Your task to perform on an android device: Show the shopping cart on target.com. Add razer thresher to the cart on target.com Image 0: 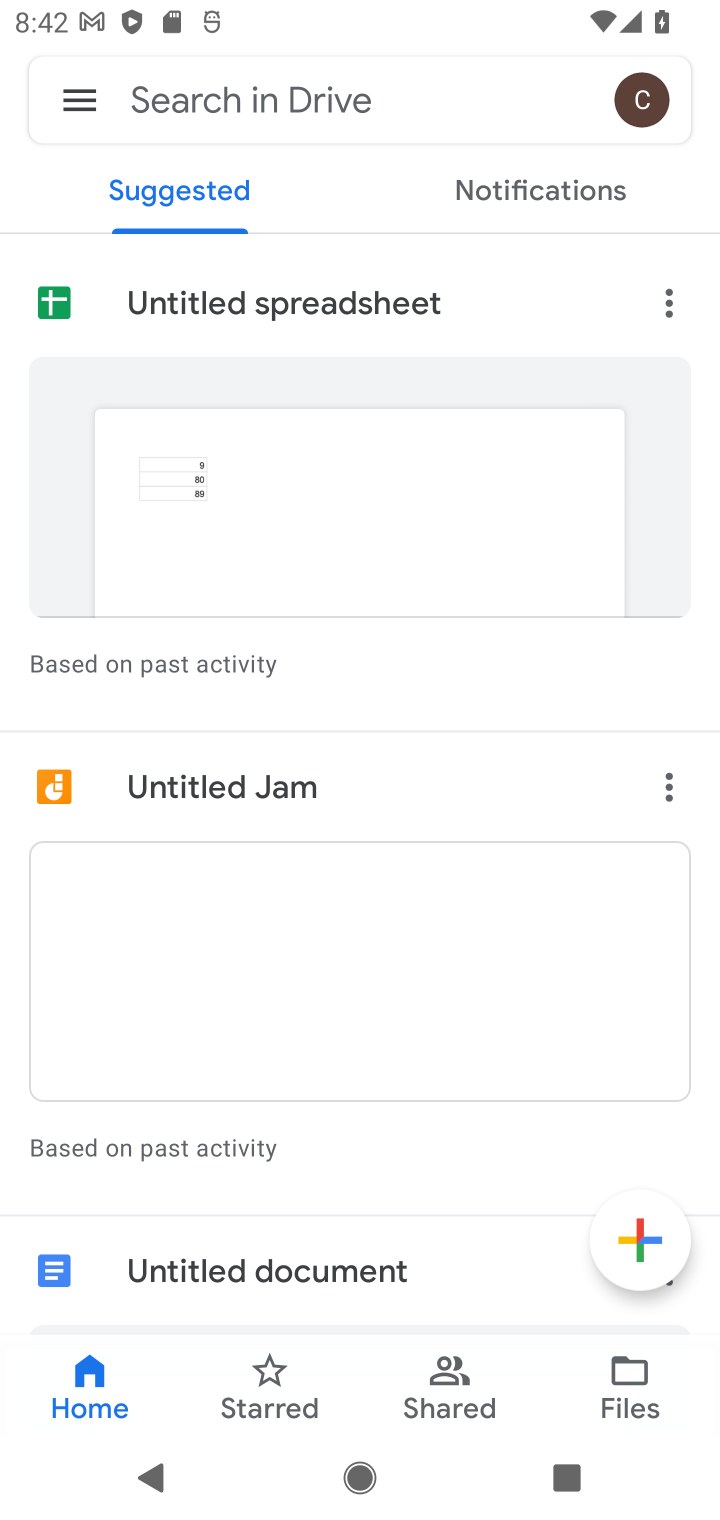
Step 0: press home button
Your task to perform on an android device: Show the shopping cart on target.com. Add razer thresher to the cart on target.com Image 1: 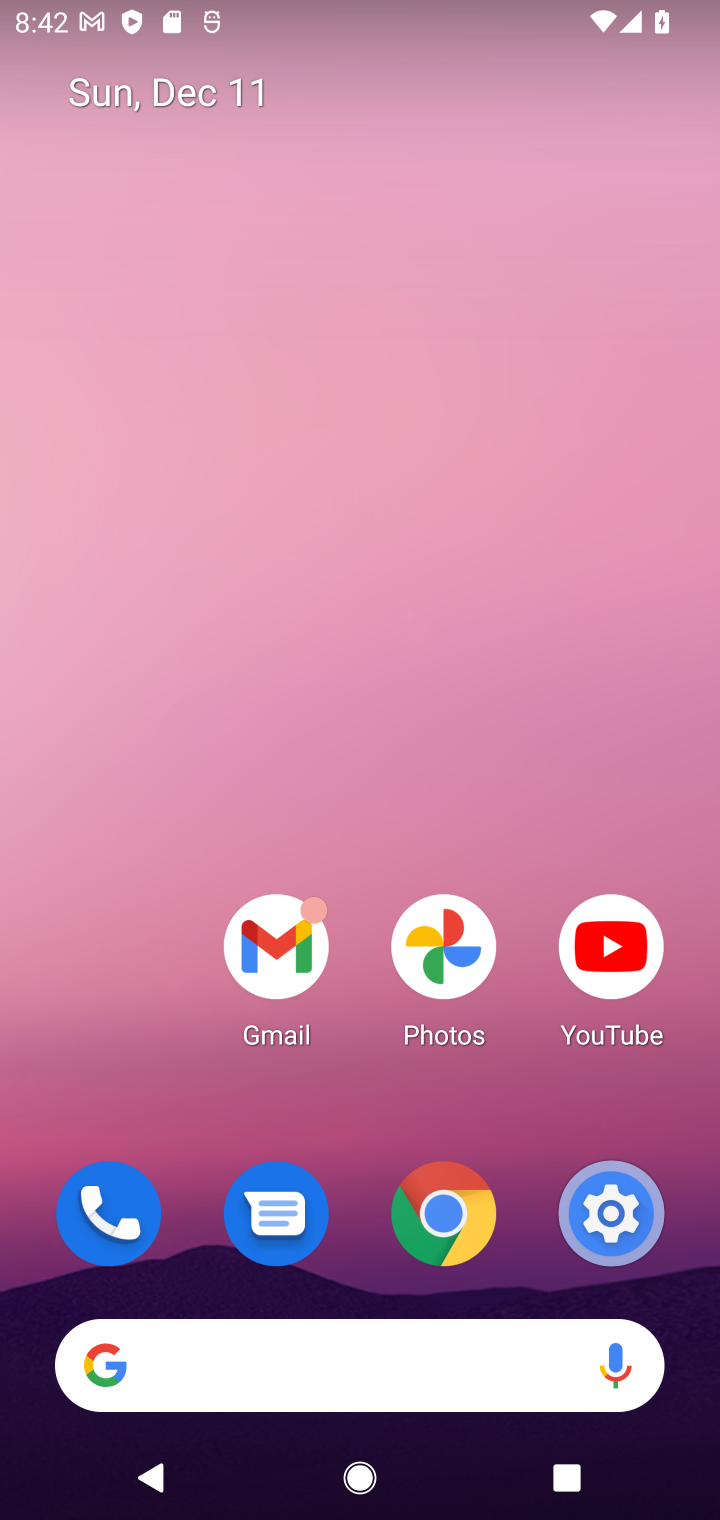
Step 1: click (396, 1360)
Your task to perform on an android device: Show the shopping cart on target.com. Add razer thresher to the cart on target.com Image 2: 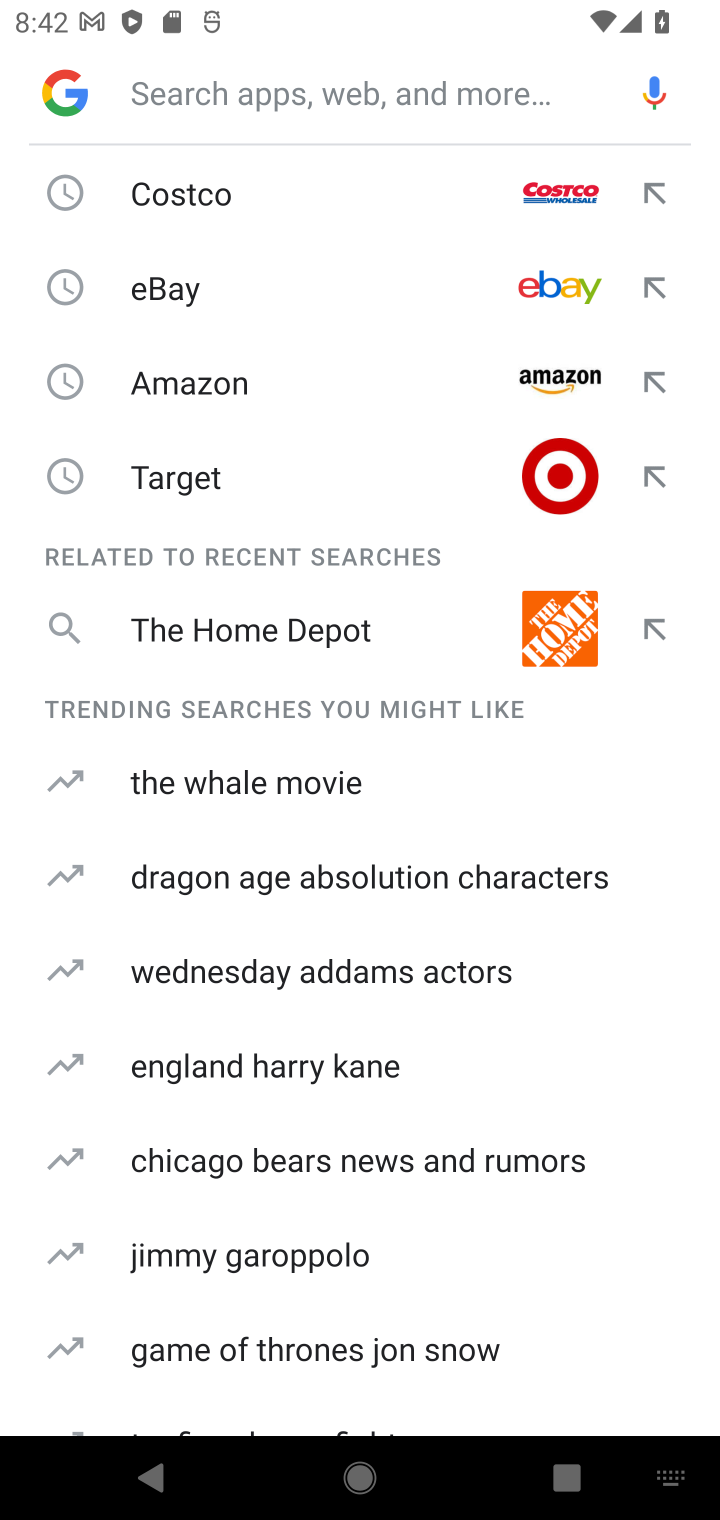
Step 2: type "target"
Your task to perform on an android device: Show the shopping cart on target.com. Add razer thresher to the cart on target.com Image 3: 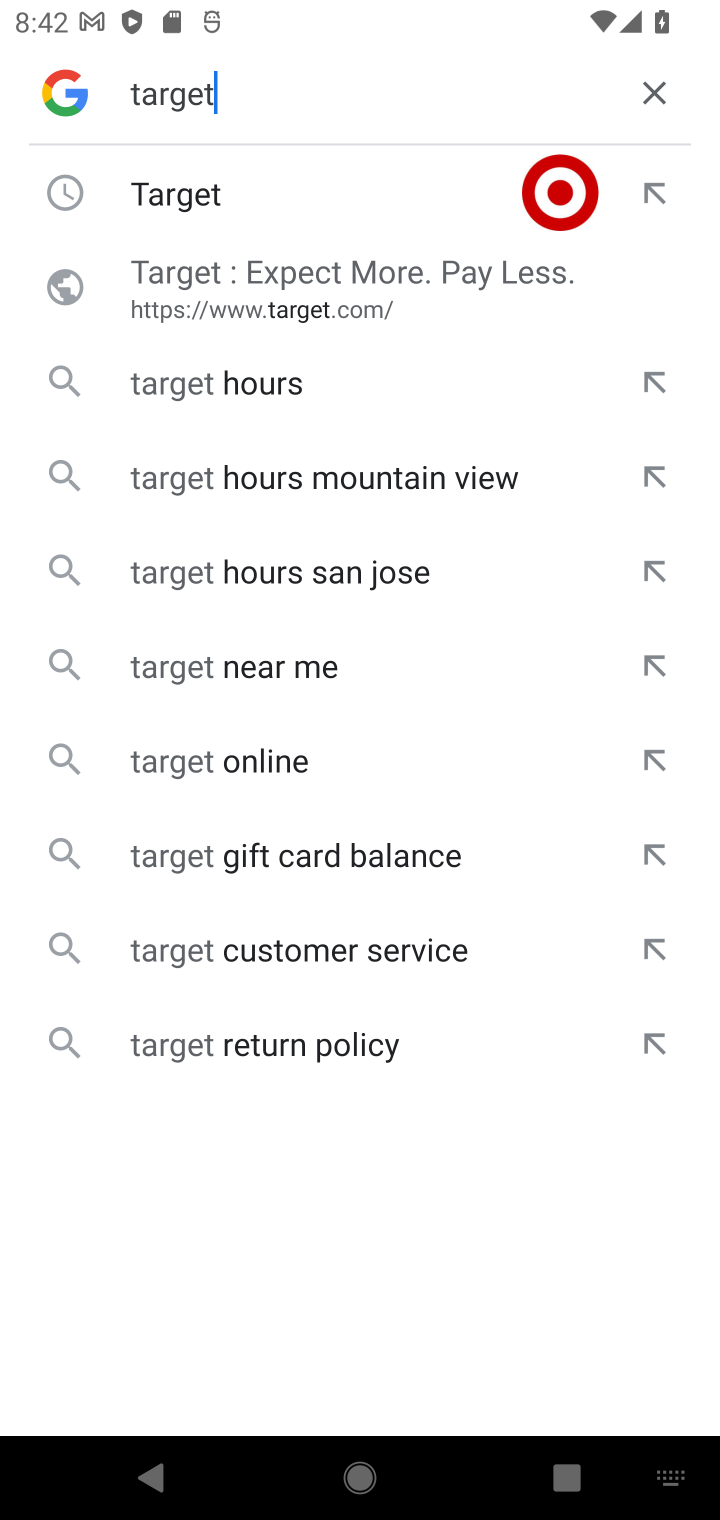
Step 3: click (370, 199)
Your task to perform on an android device: Show the shopping cart on target.com. Add razer thresher to the cart on target.com Image 4: 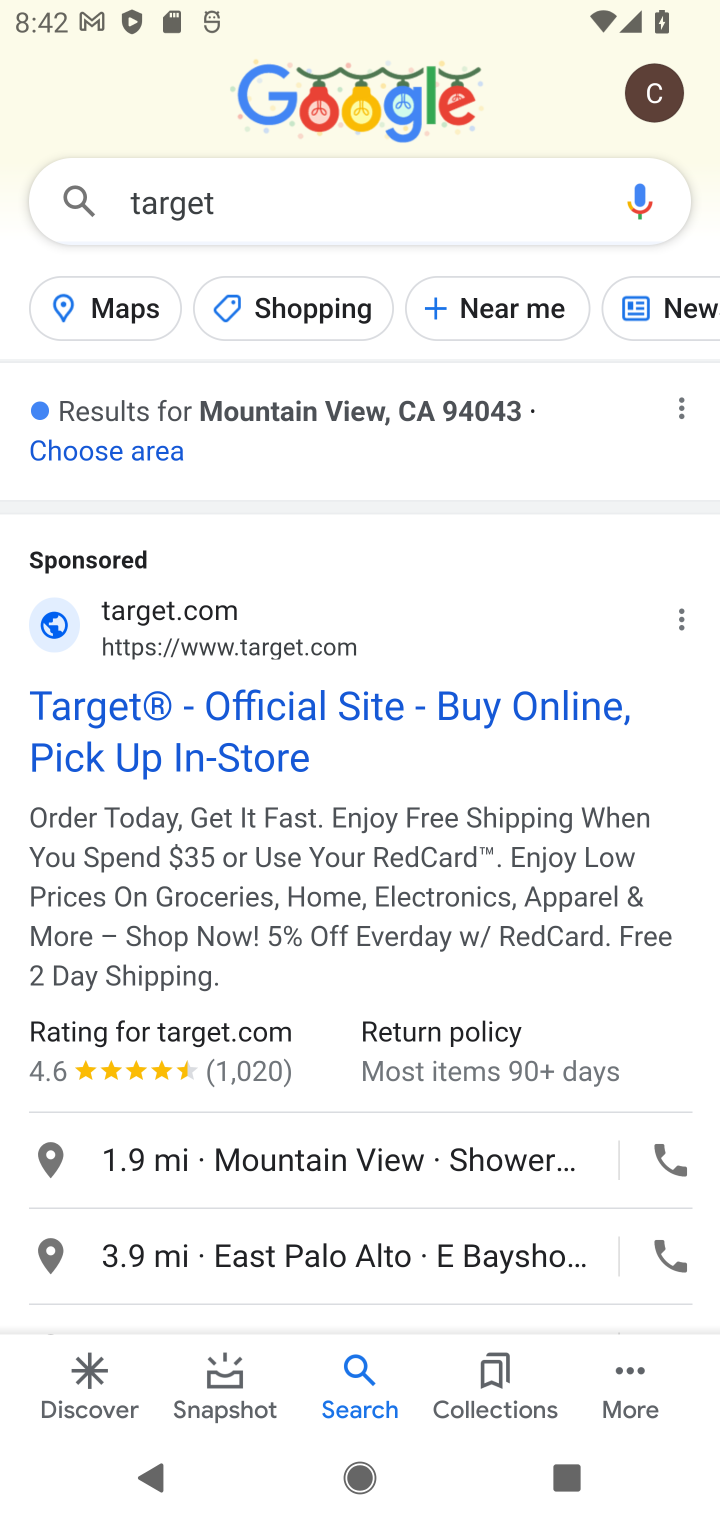
Step 4: click (149, 705)
Your task to perform on an android device: Show the shopping cart on target.com. Add razer thresher to the cart on target.com Image 5: 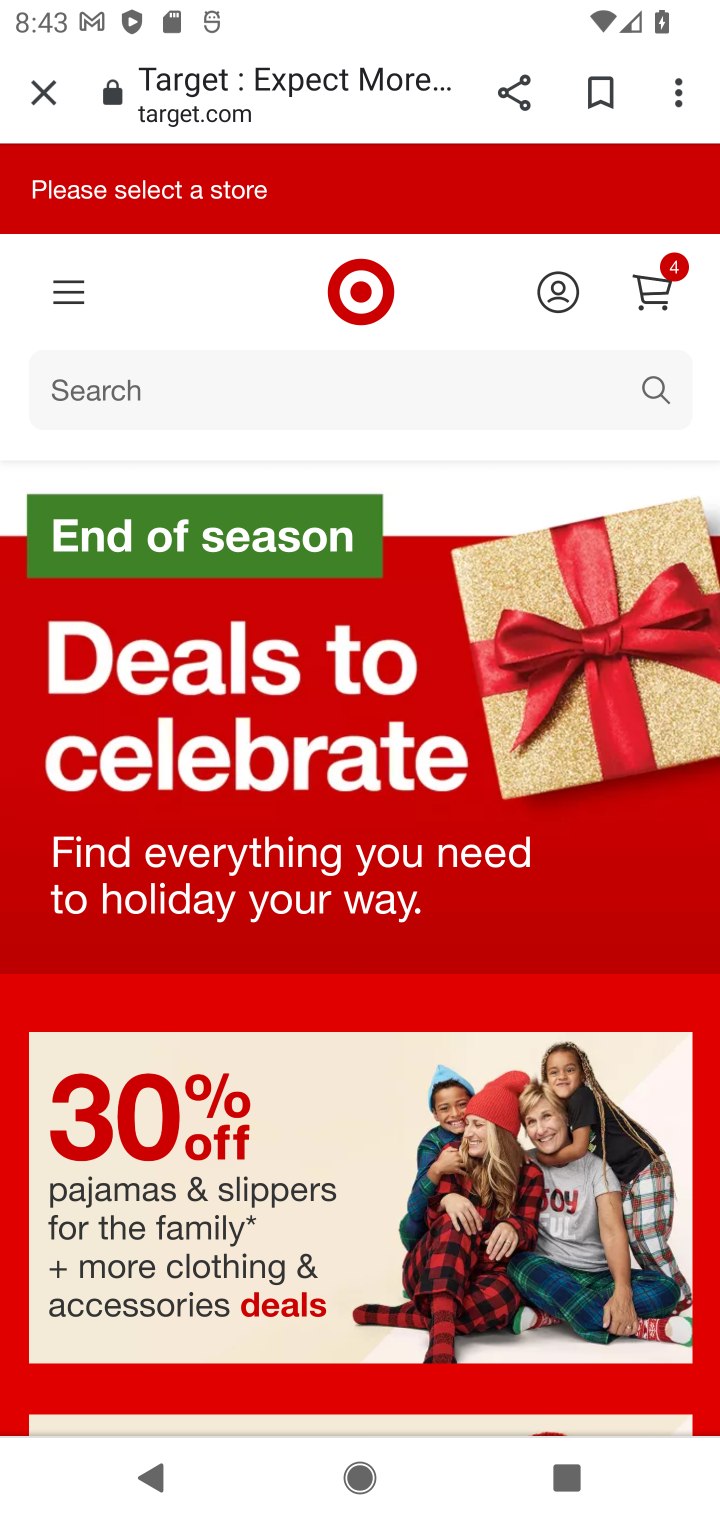
Step 5: click (299, 413)
Your task to perform on an android device: Show the shopping cart on target.com. Add razer thresher to the cart on target.com Image 6: 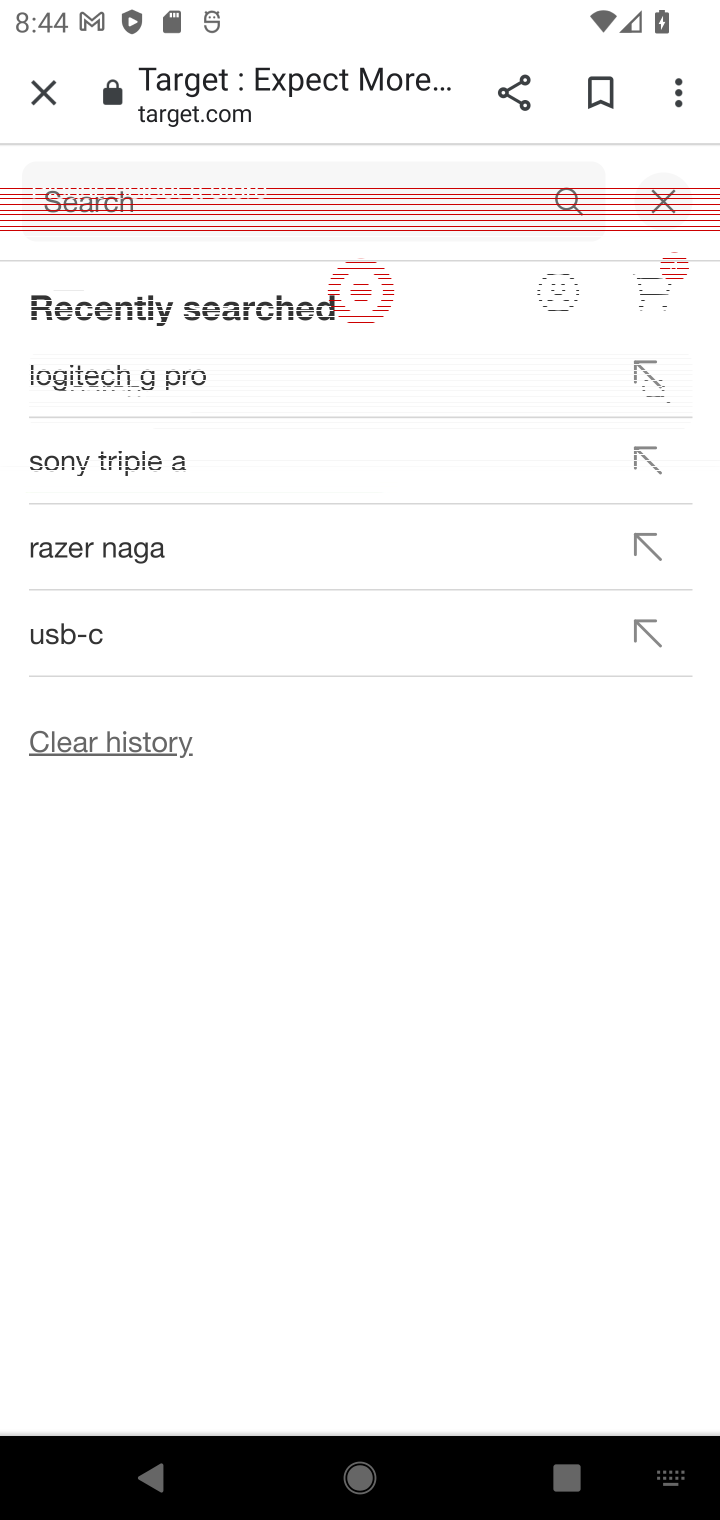
Step 6: type "razer threshar"
Your task to perform on an android device: Show the shopping cart on target.com. Add razer thresher to the cart on target.com Image 7: 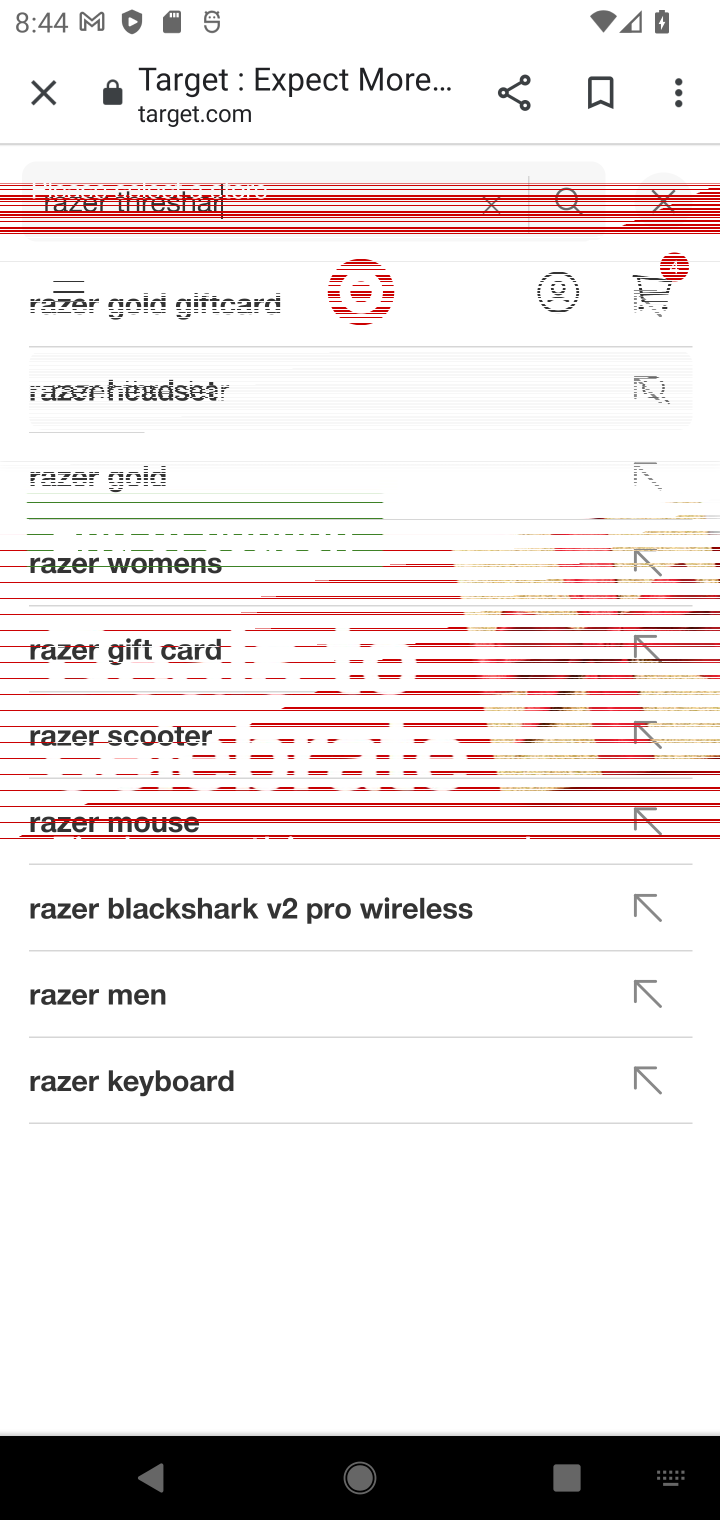
Step 7: click (556, 220)
Your task to perform on an android device: Show the shopping cart on target.com. Add razer thresher to the cart on target.com Image 8: 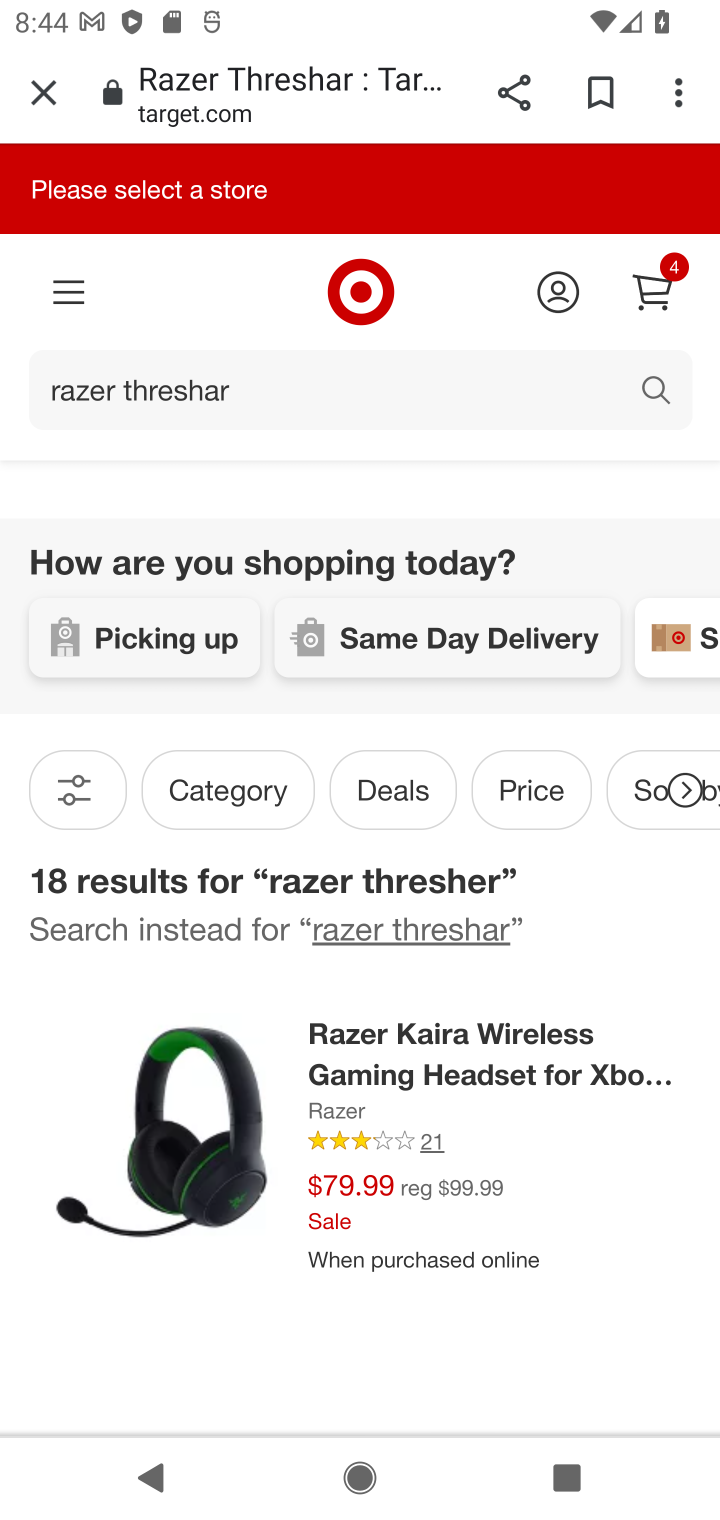
Step 8: drag from (508, 1195) to (488, 942)
Your task to perform on an android device: Show the shopping cart on target.com. Add razer thresher to the cart on target.com Image 9: 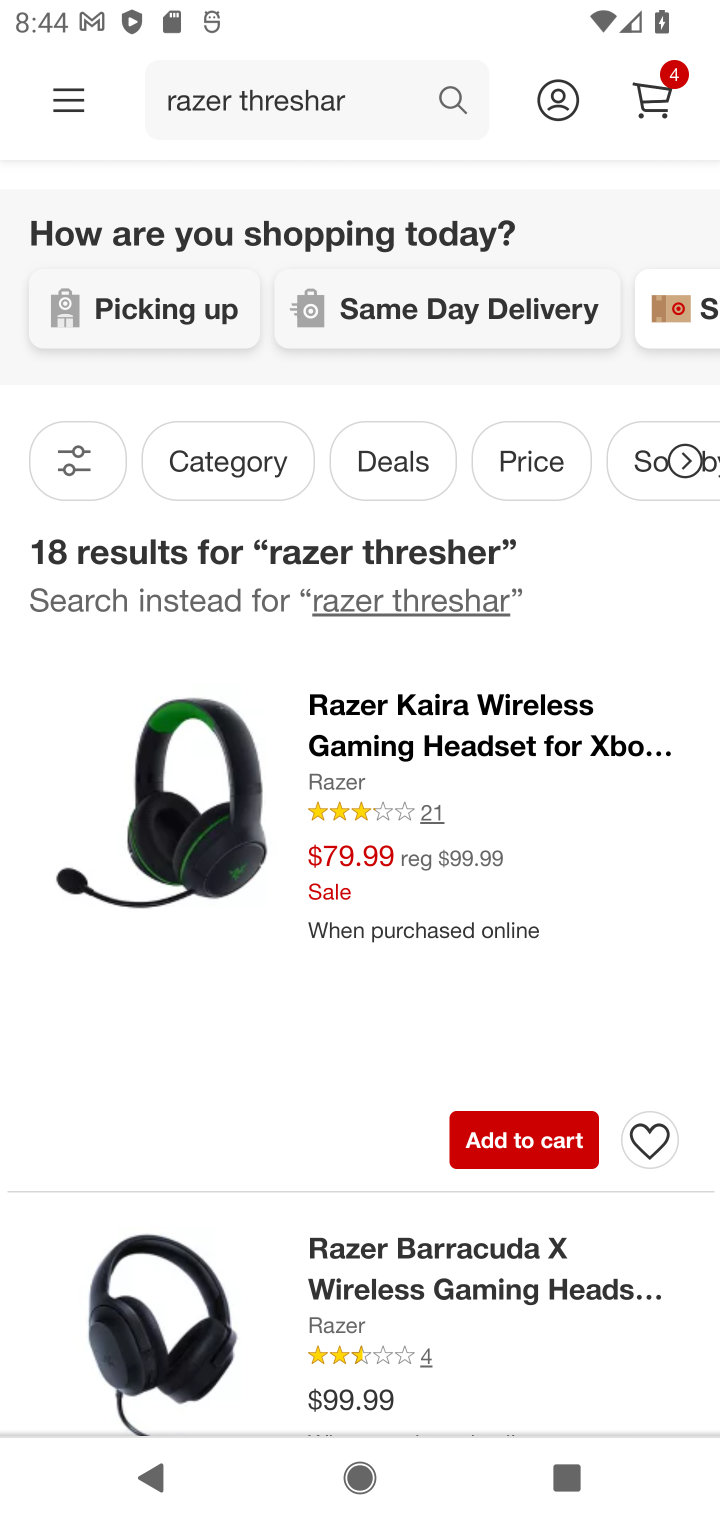
Step 9: click (558, 1166)
Your task to perform on an android device: Show the shopping cart on target.com. Add razer thresher to the cart on target.com Image 10: 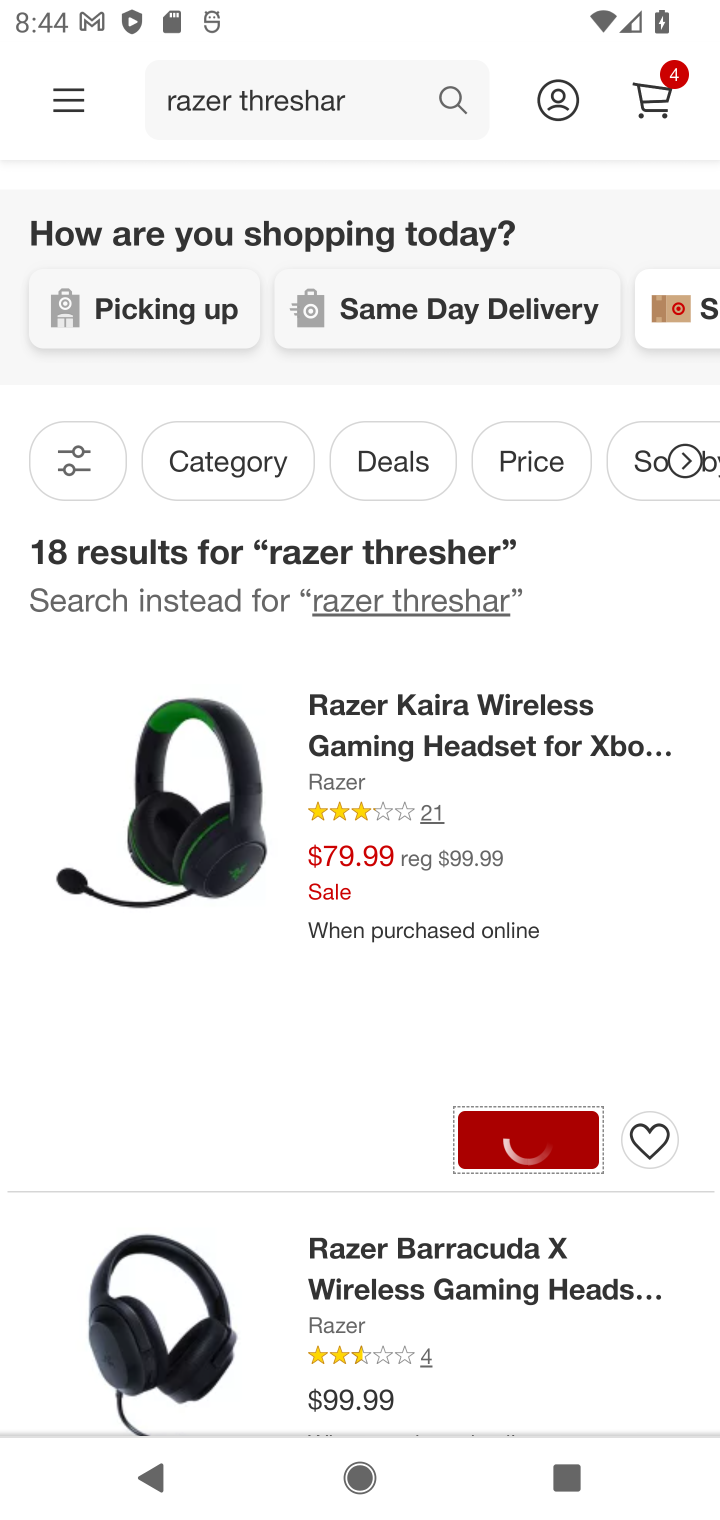
Step 10: task complete